Your task to perform on an android device: change the upload size in google photos Image 0: 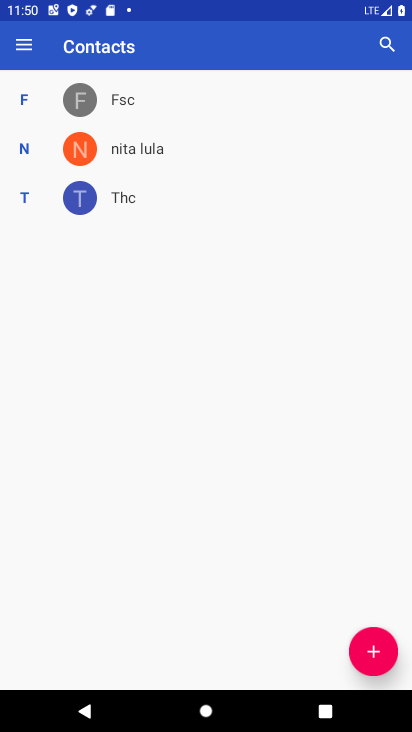
Step 0: press home button
Your task to perform on an android device: change the upload size in google photos Image 1: 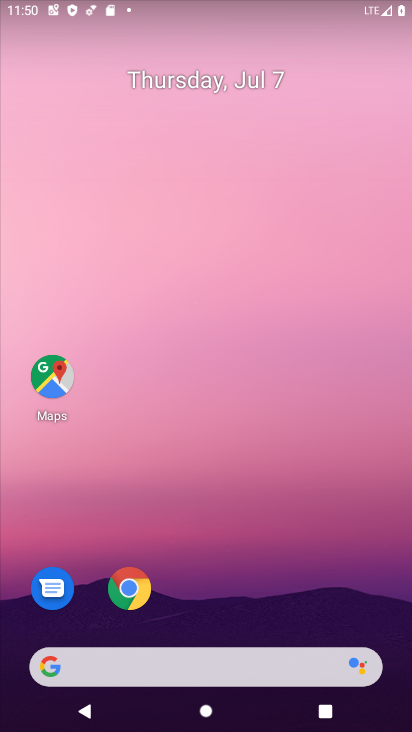
Step 1: drag from (242, 525) to (269, 60)
Your task to perform on an android device: change the upload size in google photos Image 2: 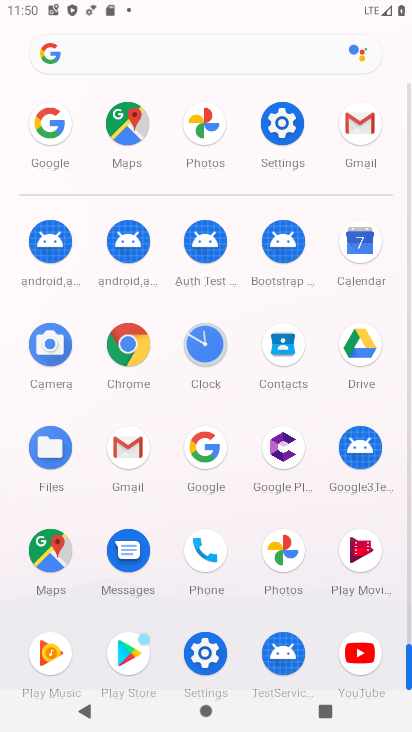
Step 2: click (282, 553)
Your task to perform on an android device: change the upload size in google photos Image 3: 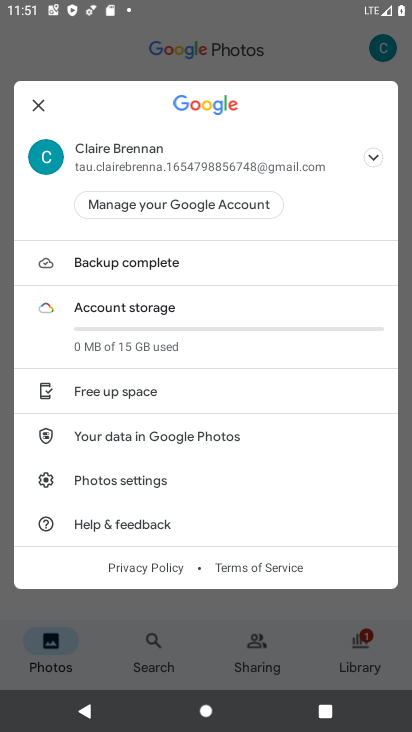
Step 3: click (150, 480)
Your task to perform on an android device: change the upload size in google photos Image 4: 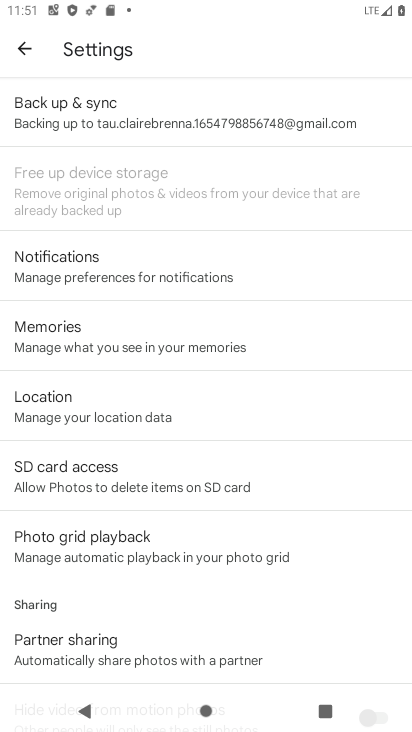
Step 4: click (60, 112)
Your task to perform on an android device: change the upload size in google photos Image 5: 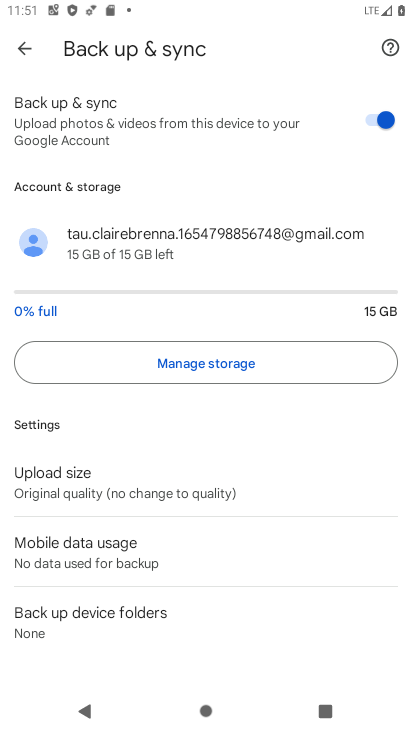
Step 5: click (132, 482)
Your task to perform on an android device: change the upload size in google photos Image 6: 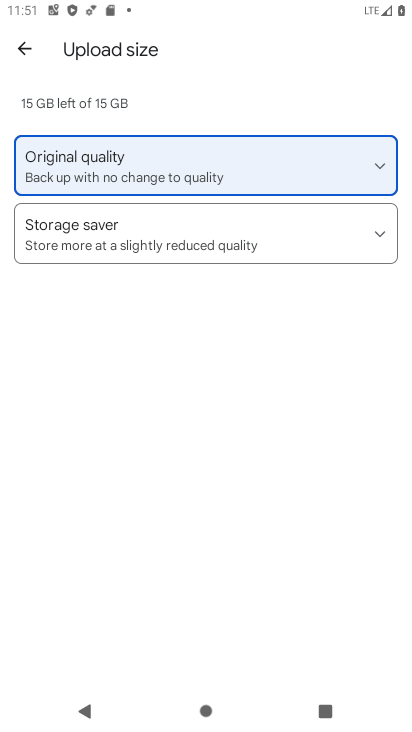
Step 6: click (117, 238)
Your task to perform on an android device: change the upload size in google photos Image 7: 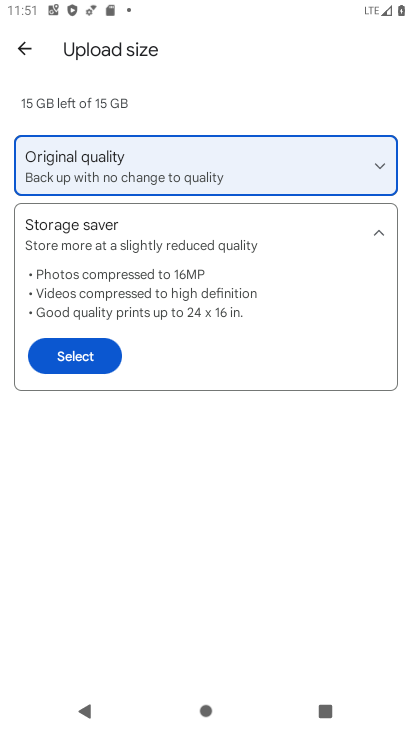
Step 7: click (96, 348)
Your task to perform on an android device: change the upload size in google photos Image 8: 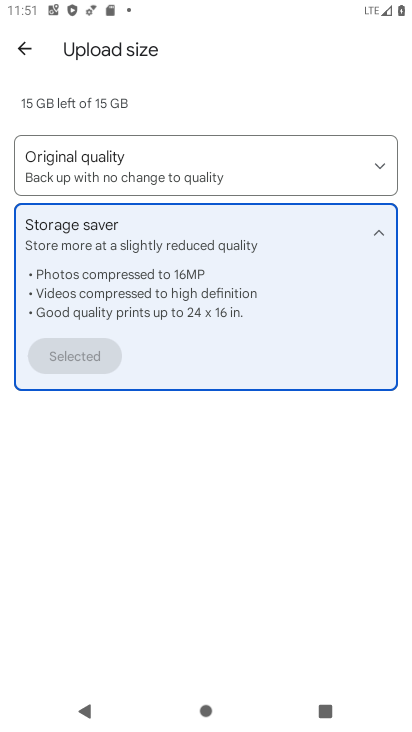
Step 8: task complete